Your task to perform on an android device: Open Google Maps Image 0: 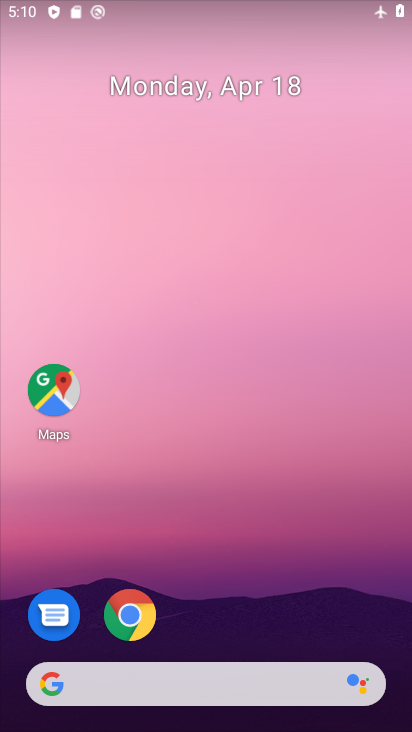
Step 0: drag from (231, 602) to (270, 83)
Your task to perform on an android device: Open Google Maps Image 1: 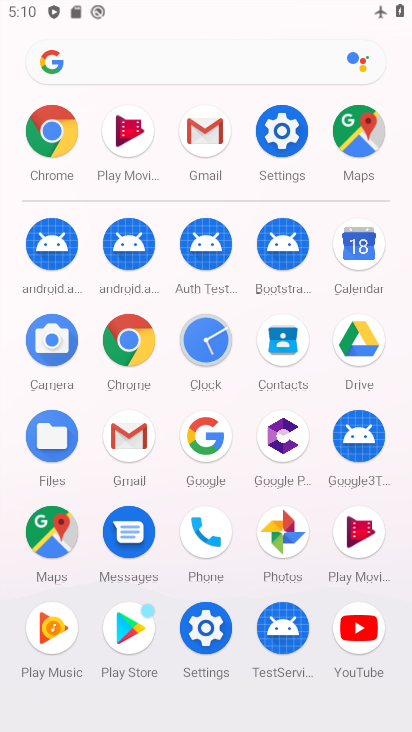
Step 1: click (342, 136)
Your task to perform on an android device: Open Google Maps Image 2: 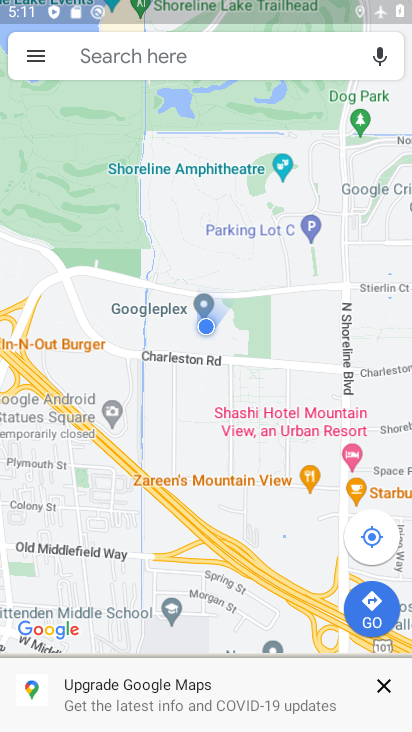
Step 2: task complete